Your task to perform on an android device: install app "Calculator" Image 0: 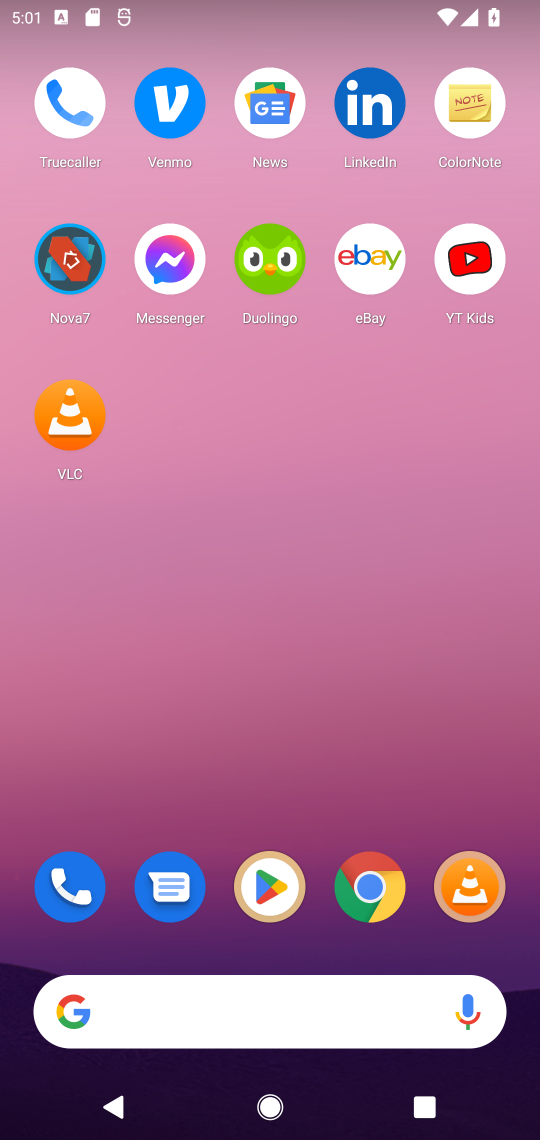
Step 0: click (263, 888)
Your task to perform on an android device: install app "Calculator" Image 1: 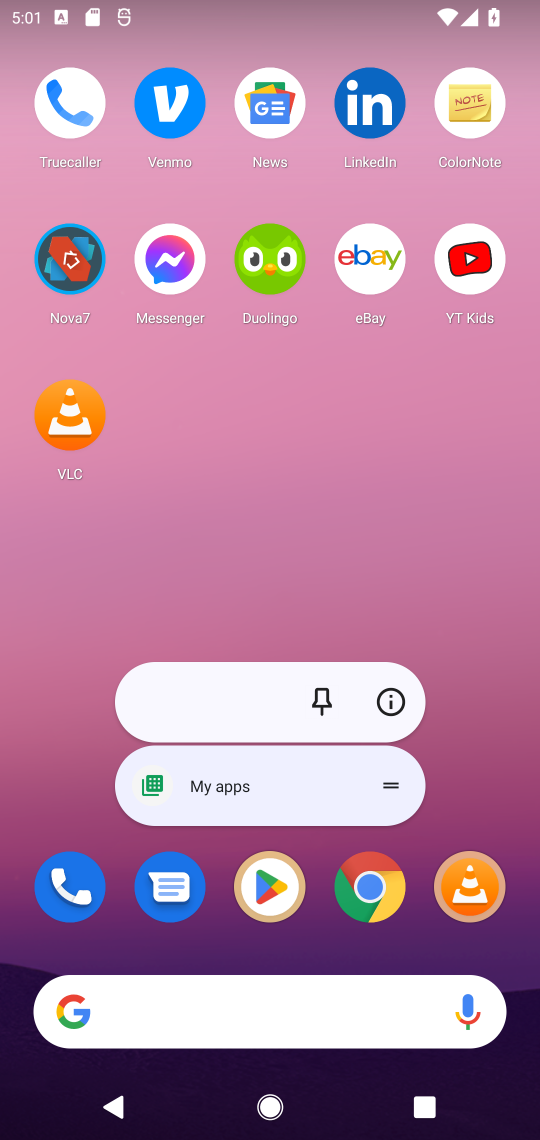
Step 1: click (263, 919)
Your task to perform on an android device: install app "Calculator" Image 2: 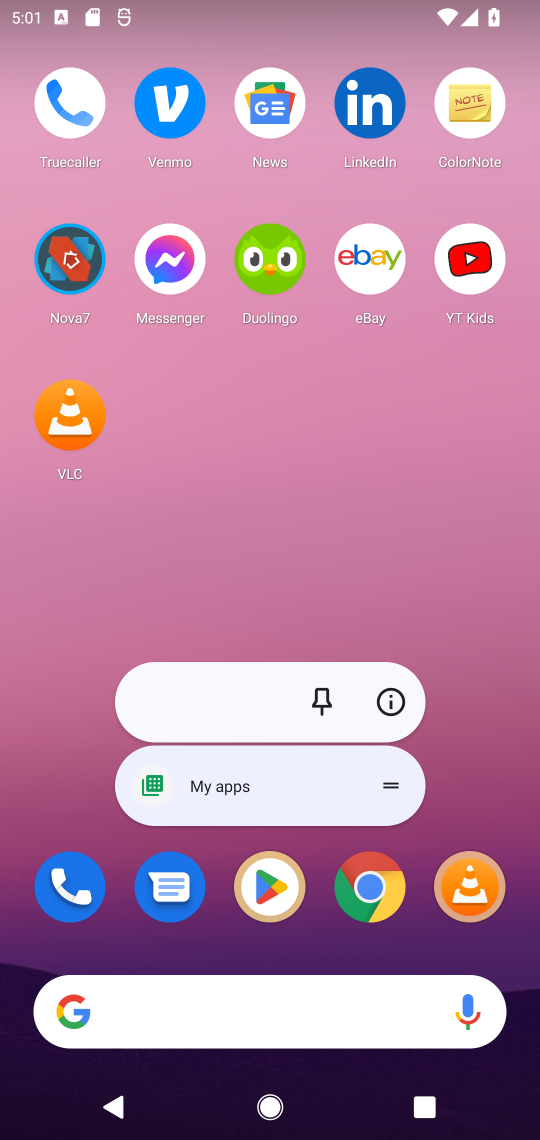
Step 2: click (270, 875)
Your task to perform on an android device: install app "Calculator" Image 3: 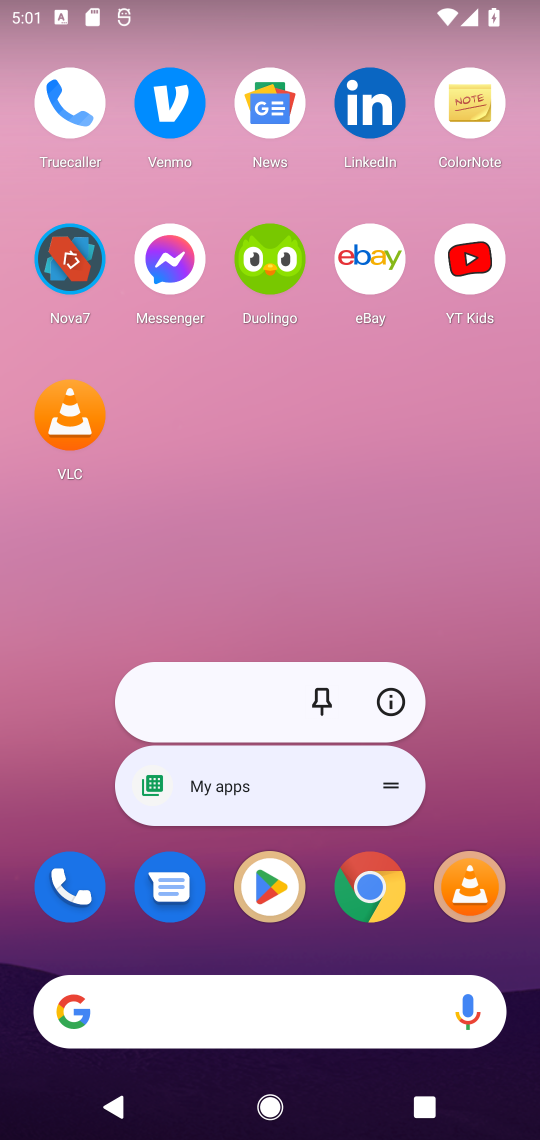
Step 3: click (270, 897)
Your task to perform on an android device: install app "Calculator" Image 4: 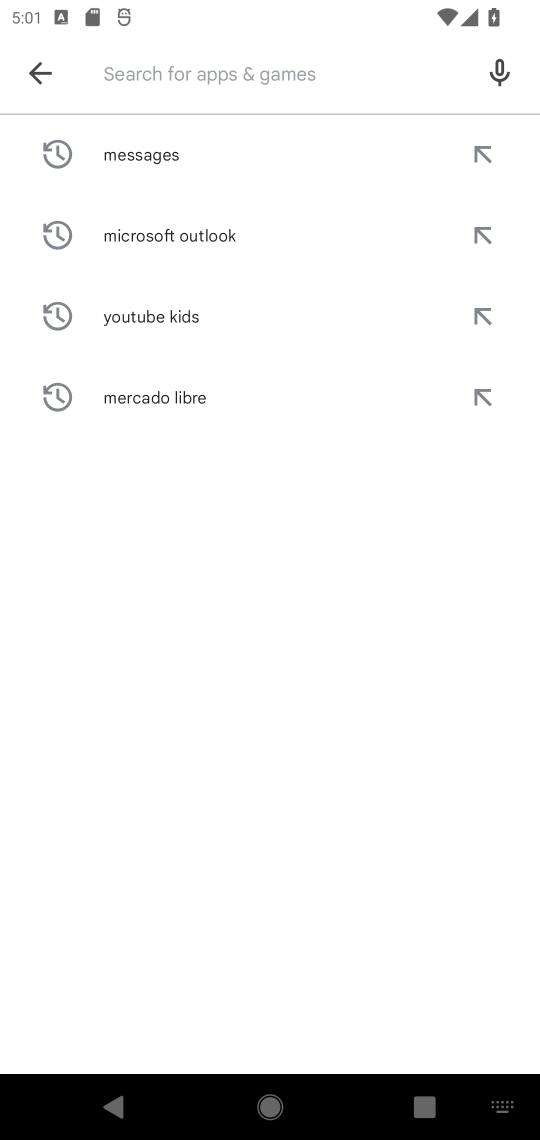
Step 4: click (40, 71)
Your task to perform on an android device: install app "Calculator" Image 5: 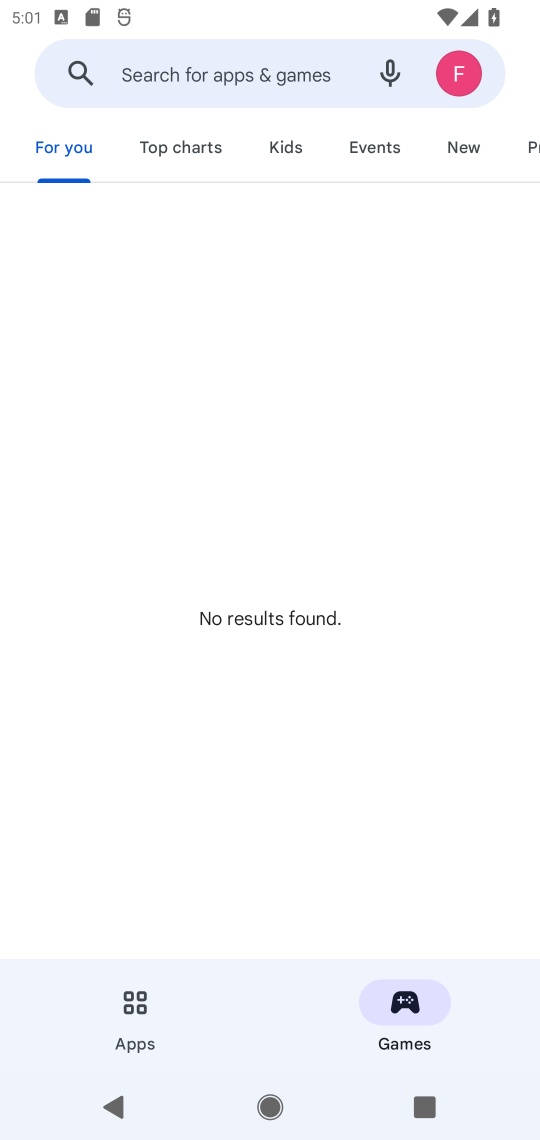
Step 5: click (196, 85)
Your task to perform on an android device: install app "Calculator" Image 6: 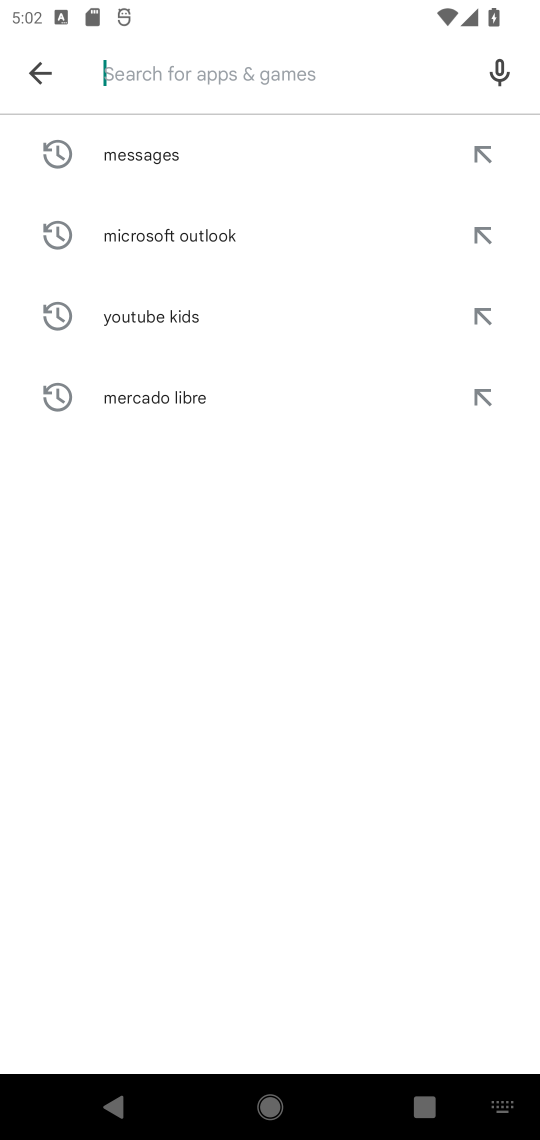
Step 6: type "Calculator"
Your task to perform on an android device: install app "Calculator" Image 7: 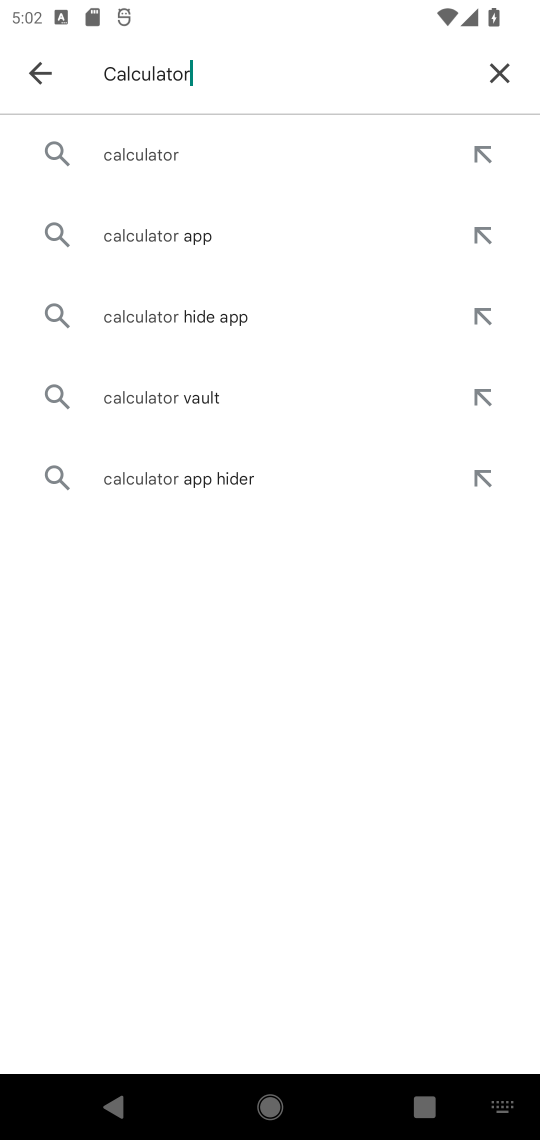
Step 7: click (123, 160)
Your task to perform on an android device: install app "Calculator" Image 8: 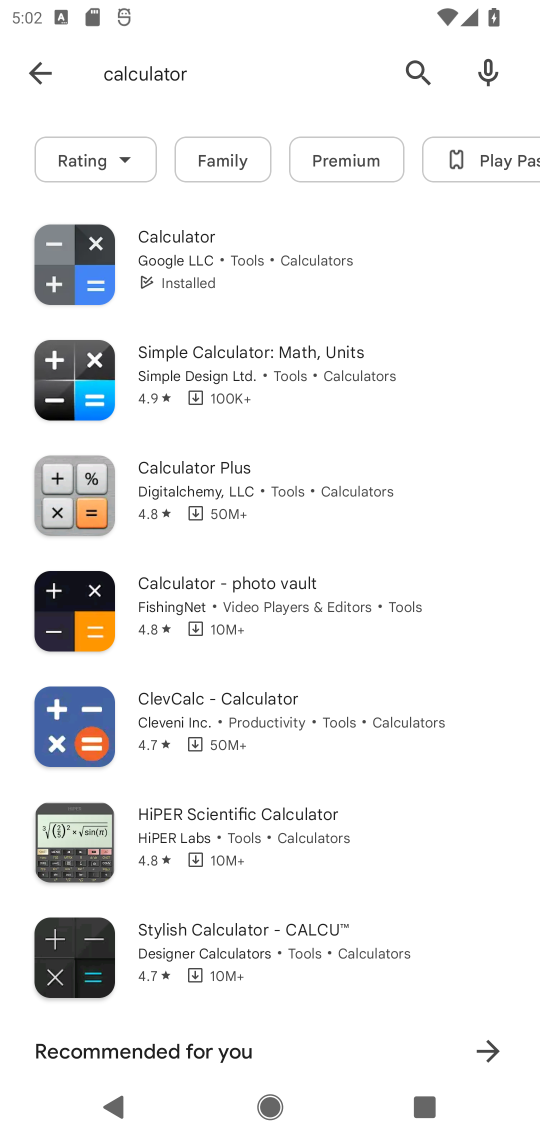
Step 8: click (170, 278)
Your task to perform on an android device: install app "Calculator" Image 9: 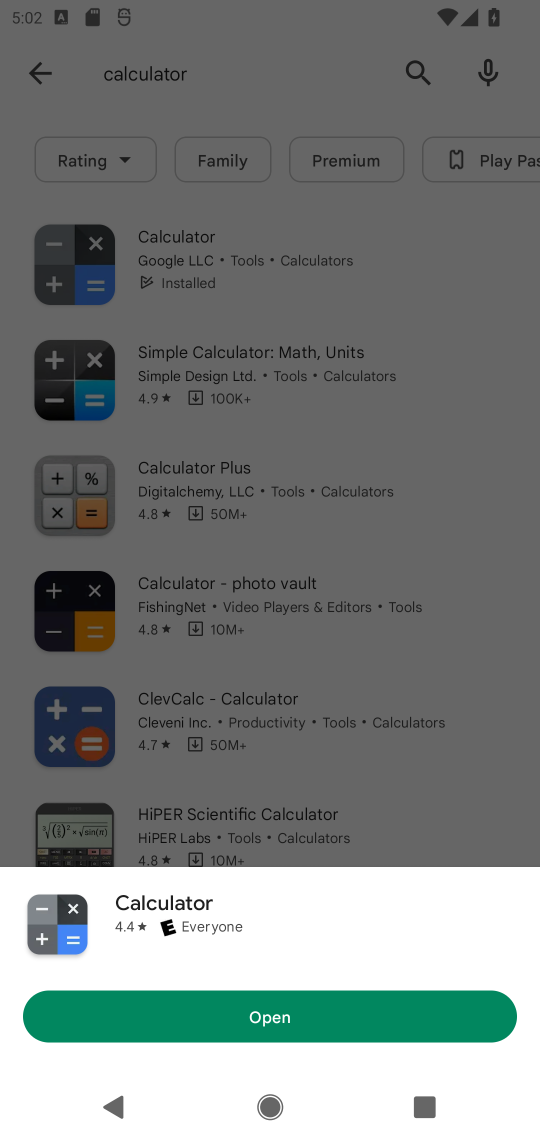
Step 9: click (282, 1007)
Your task to perform on an android device: install app "Calculator" Image 10: 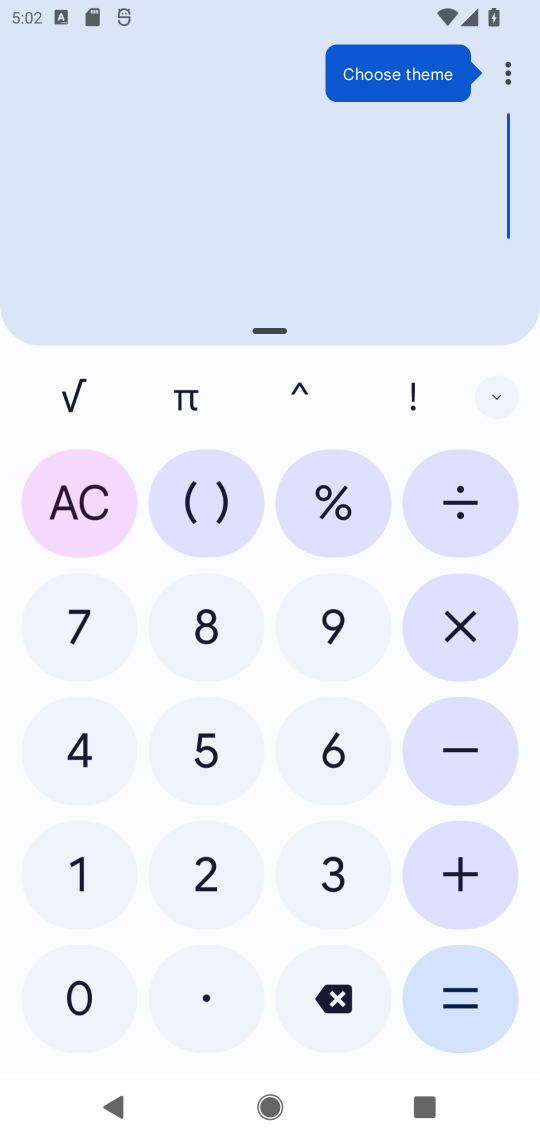
Step 10: task complete